Your task to perform on an android device: see sites visited before in the chrome app Image 0: 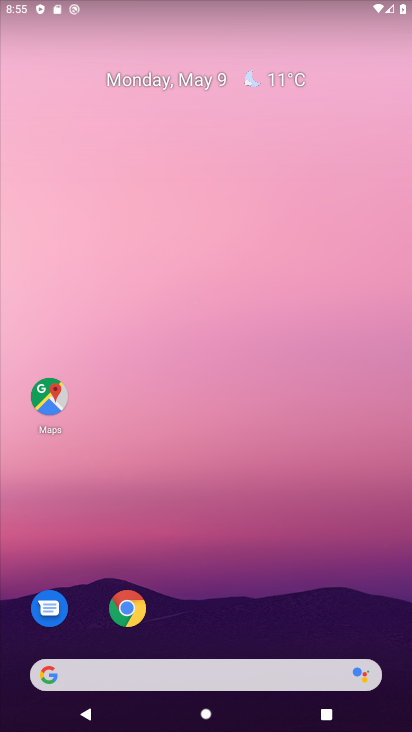
Step 0: drag from (191, 577) to (173, 205)
Your task to perform on an android device: see sites visited before in the chrome app Image 1: 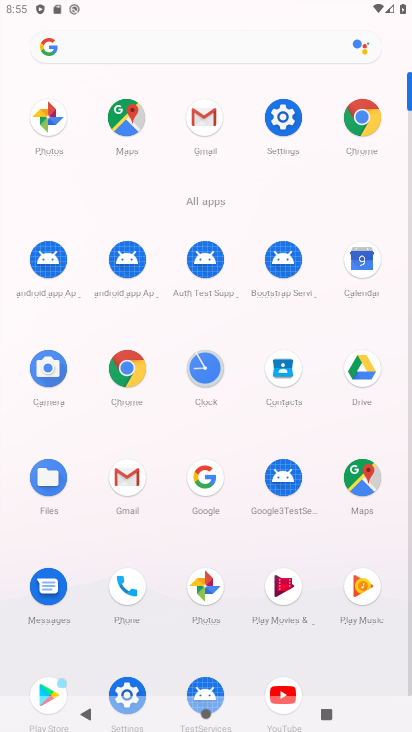
Step 1: click (128, 362)
Your task to perform on an android device: see sites visited before in the chrome app Image 2: 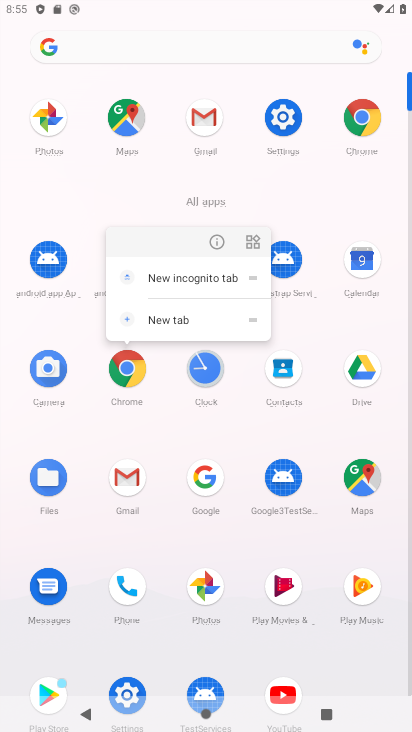
Step 2: click (361, 116)
Your task to perform on an android device: see sites visited before in the chrome app Image 3: 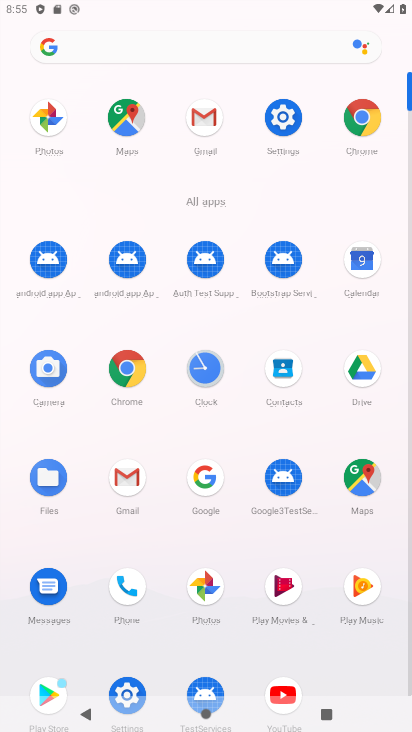
Step 3: click (364, 116)
Your task to perform on an android device: see sites visited before in the chrome app Image 4: 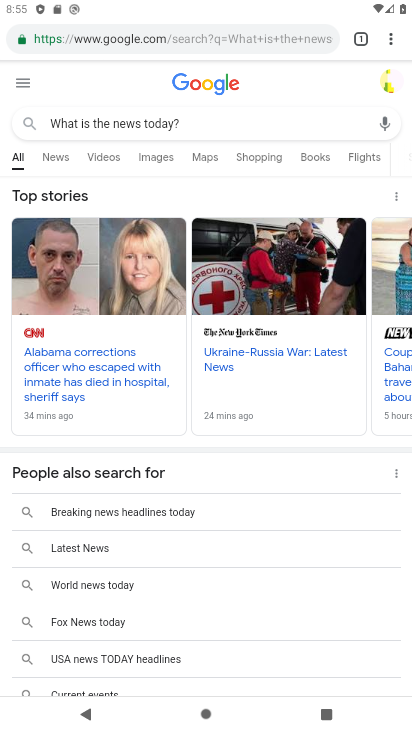
Step 4: click (388, 40)
Your task to perform on an android device: see sites visited before in the chrome app Image 5: 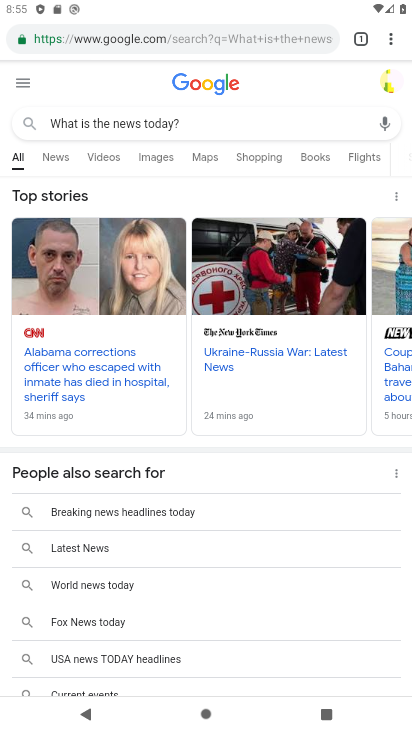
Step 5: click (388, 40)
Your task to perform on an android device: see sites visited before in the chrome app Image 6: 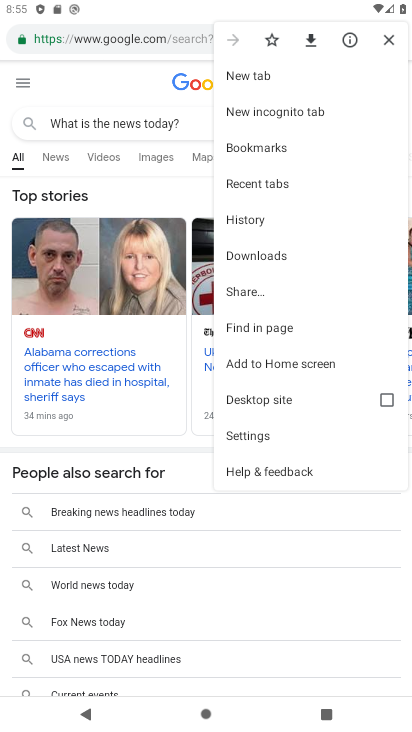
Step 6: click (270, 219)
Your task to perform on an android device: see sites visited before in the chrome app Image 7: 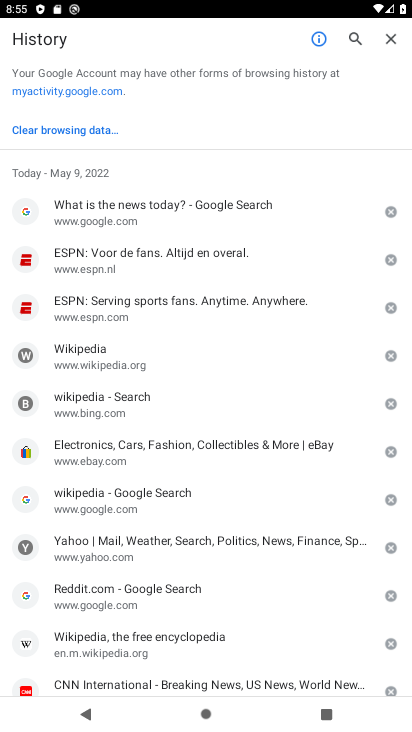
Step 7: task complete